Your task to perform on an android device: Search for flights from Seoul to Barcelona Image 0: 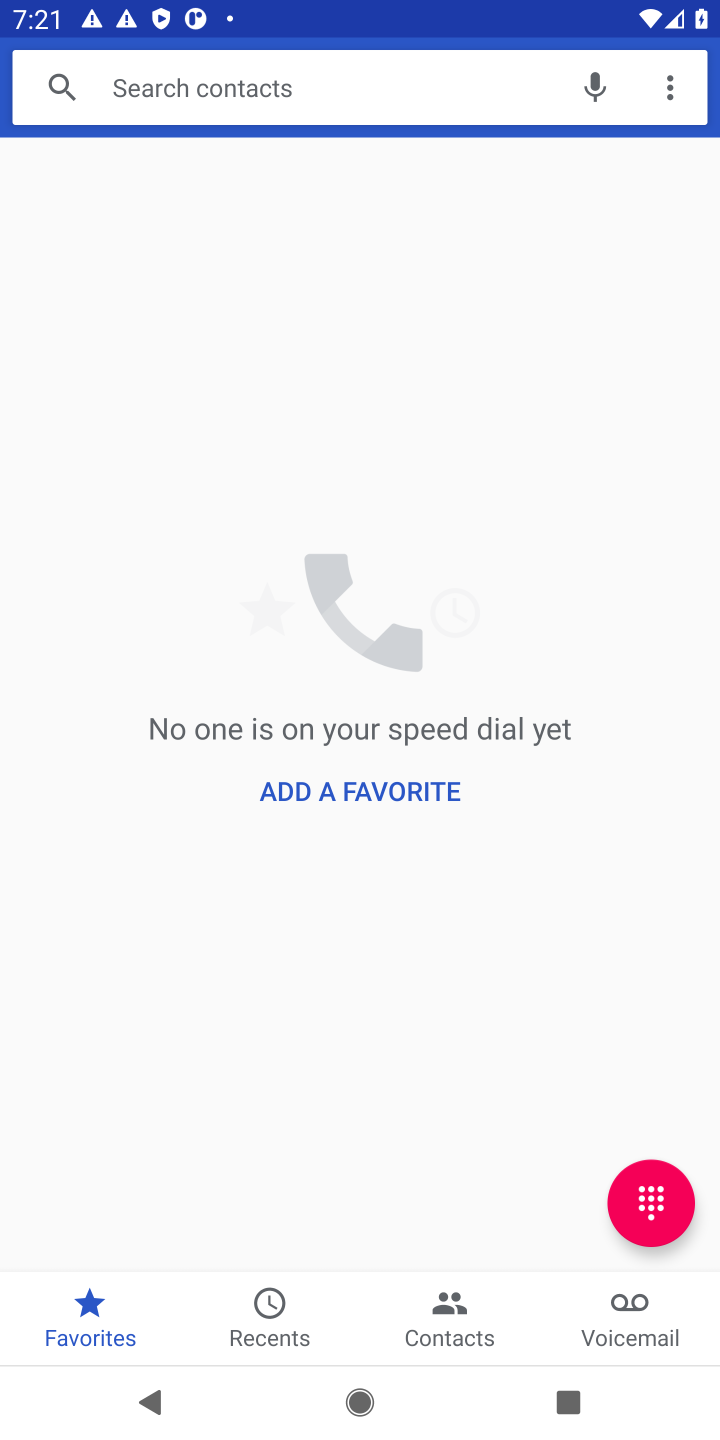
Step 0: press home button
Your task to perform on an android device: Search for flights from Seoul to Barcelona Image 1: 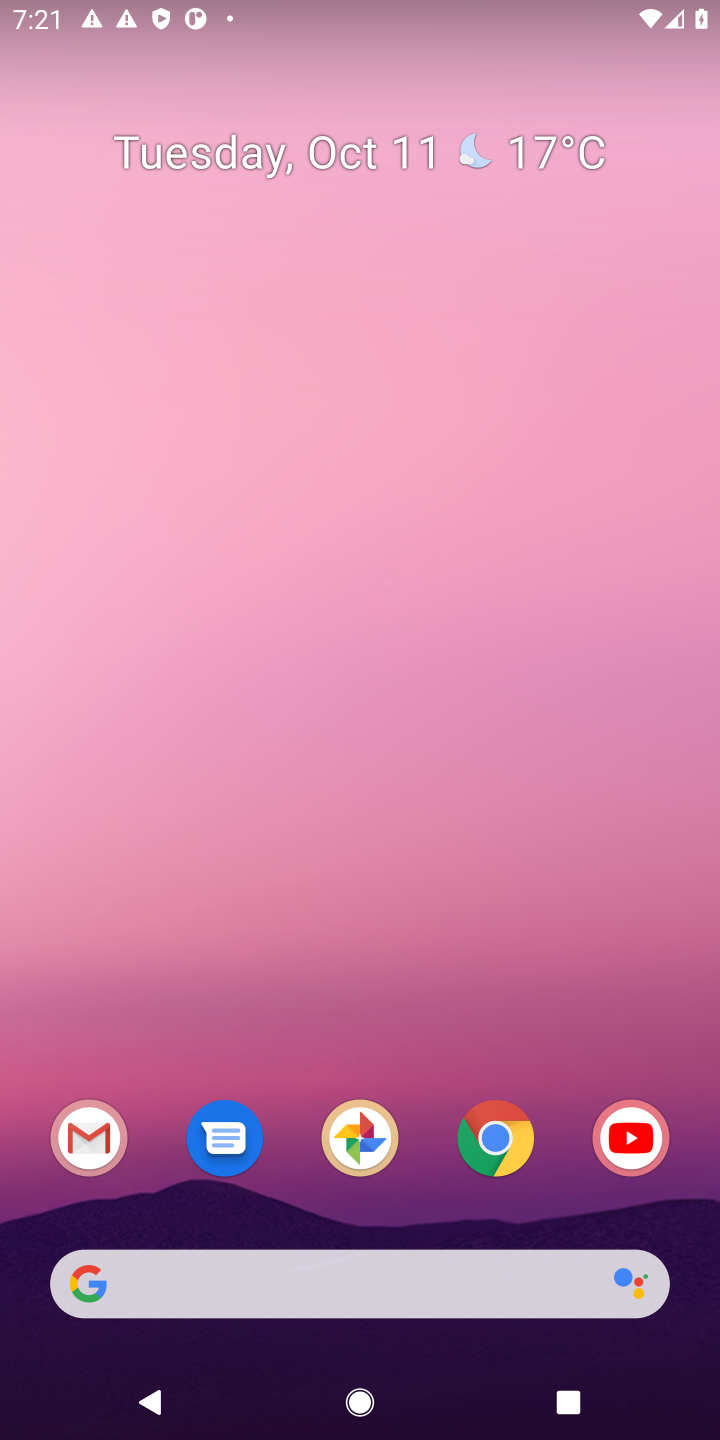
Step 1: click (217, 1268)
Your task to perform on an android device: Search for flights from Seoul to Barcelona Image 2: 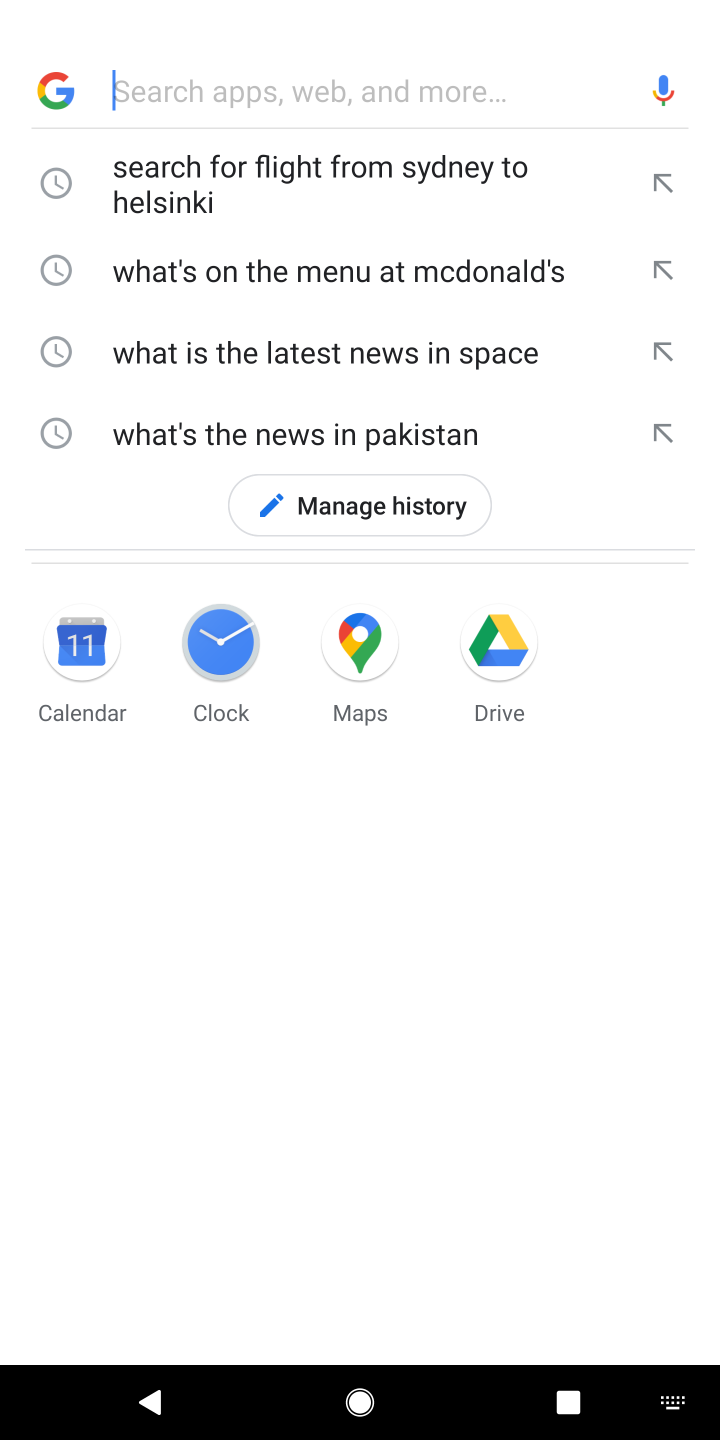
Step 2: type "Search for flights from Seoul to Barcelona"
Your task to perform on an android device: Search for flights from Seoul to Barcelona Image 3: 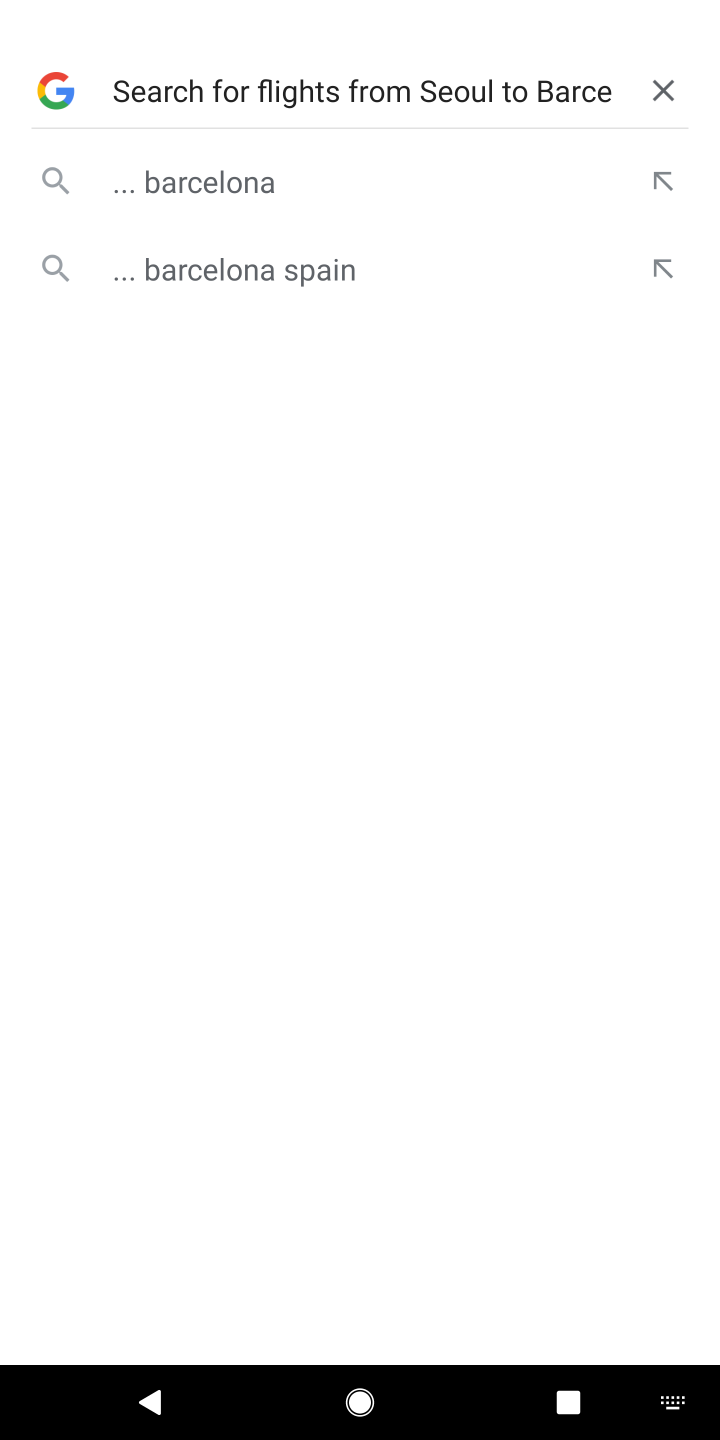
Step 3: click (204, 171)
Your task to perform on an android device: Search for flights from Seoul to Barcelona Image 4: 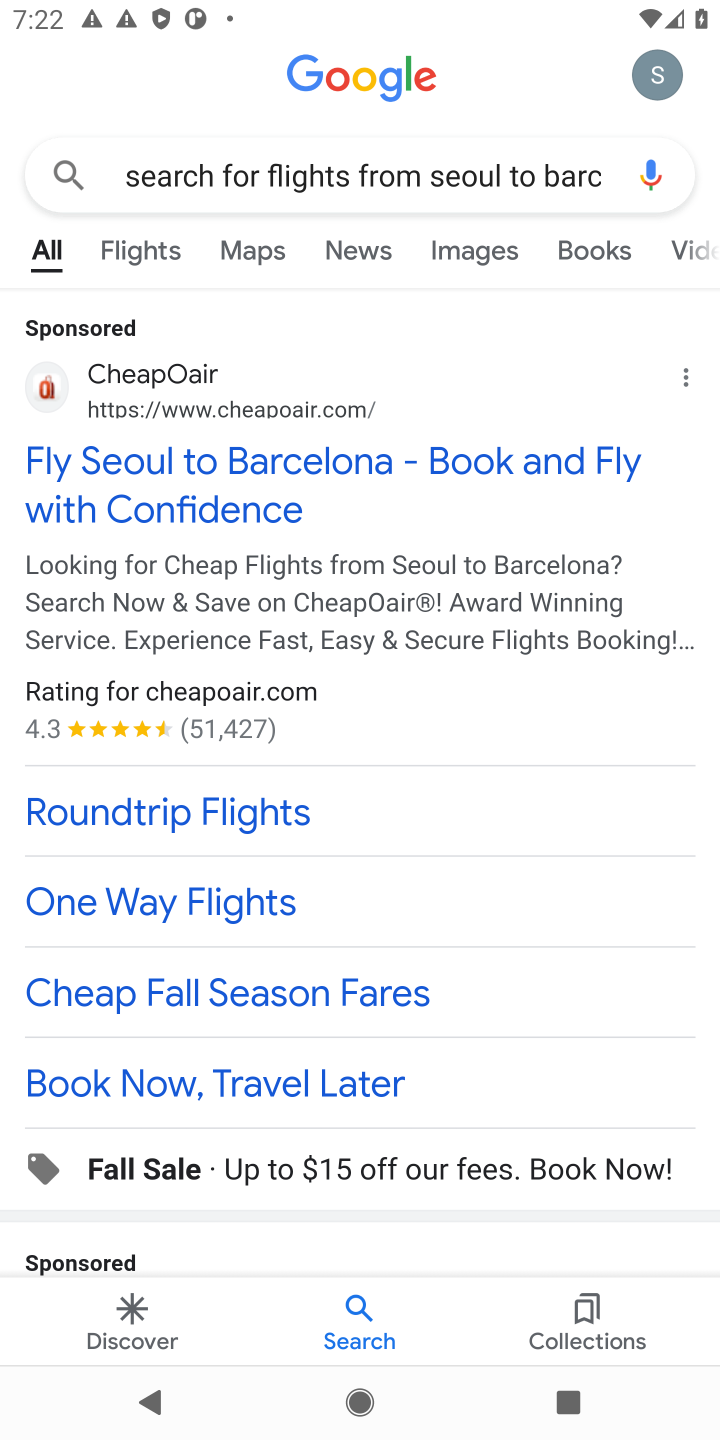
Step 4: click (232, 464)
Your task to perform on an android device: Search for flights from Seoul to Barcelona Image 5: 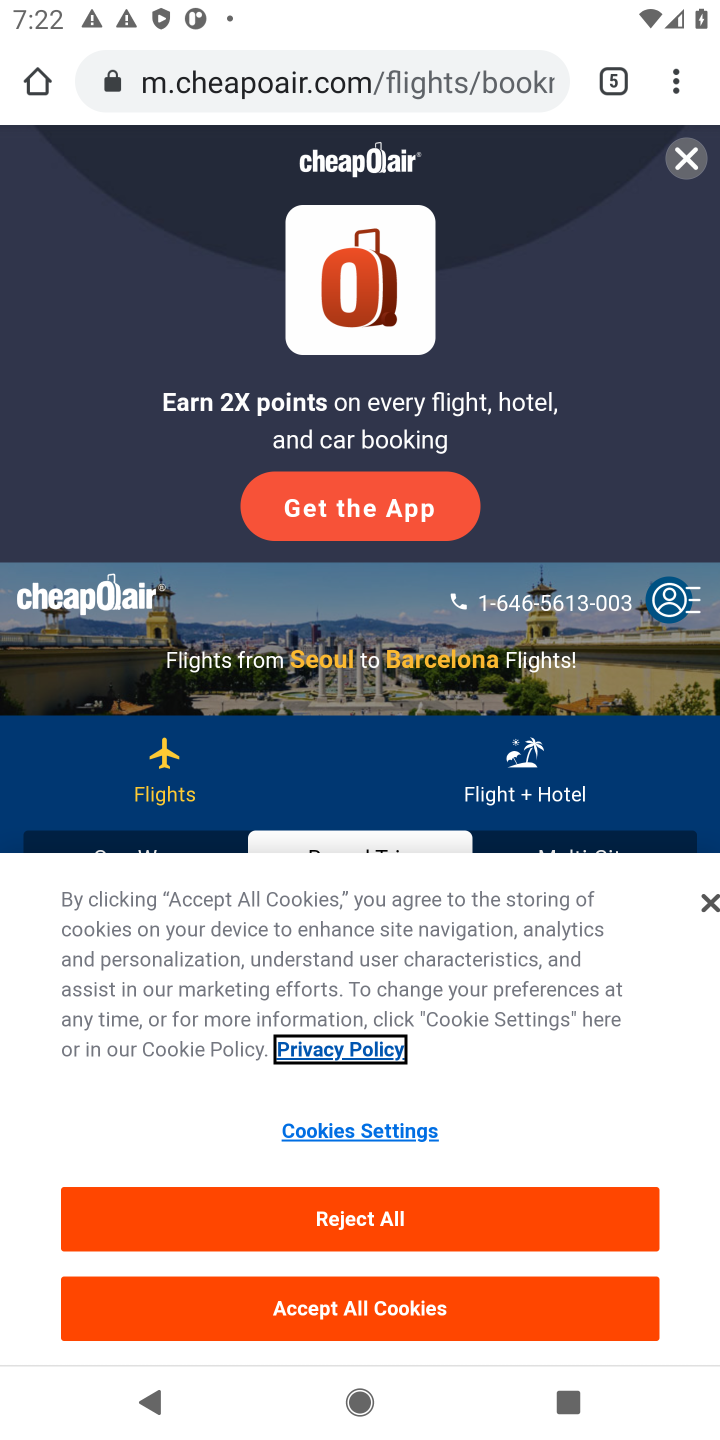
Step 5: click (358, 1317)
Your task to perform on an android device: Search for flights from Seoul to Barcelona Image 6: 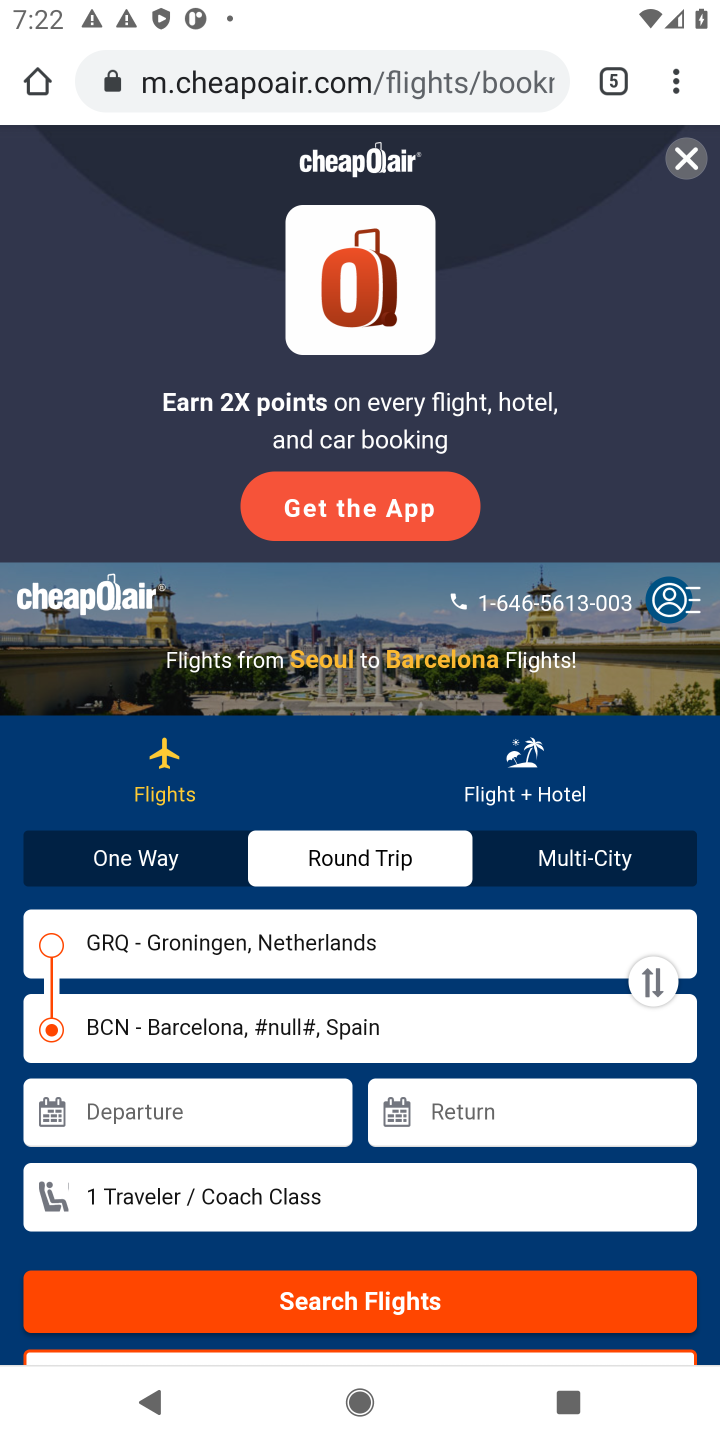
Step 6: click (56, 1101)
Your task to perform on an android device: Search for flights from Seoul to Barcelona Image 7: 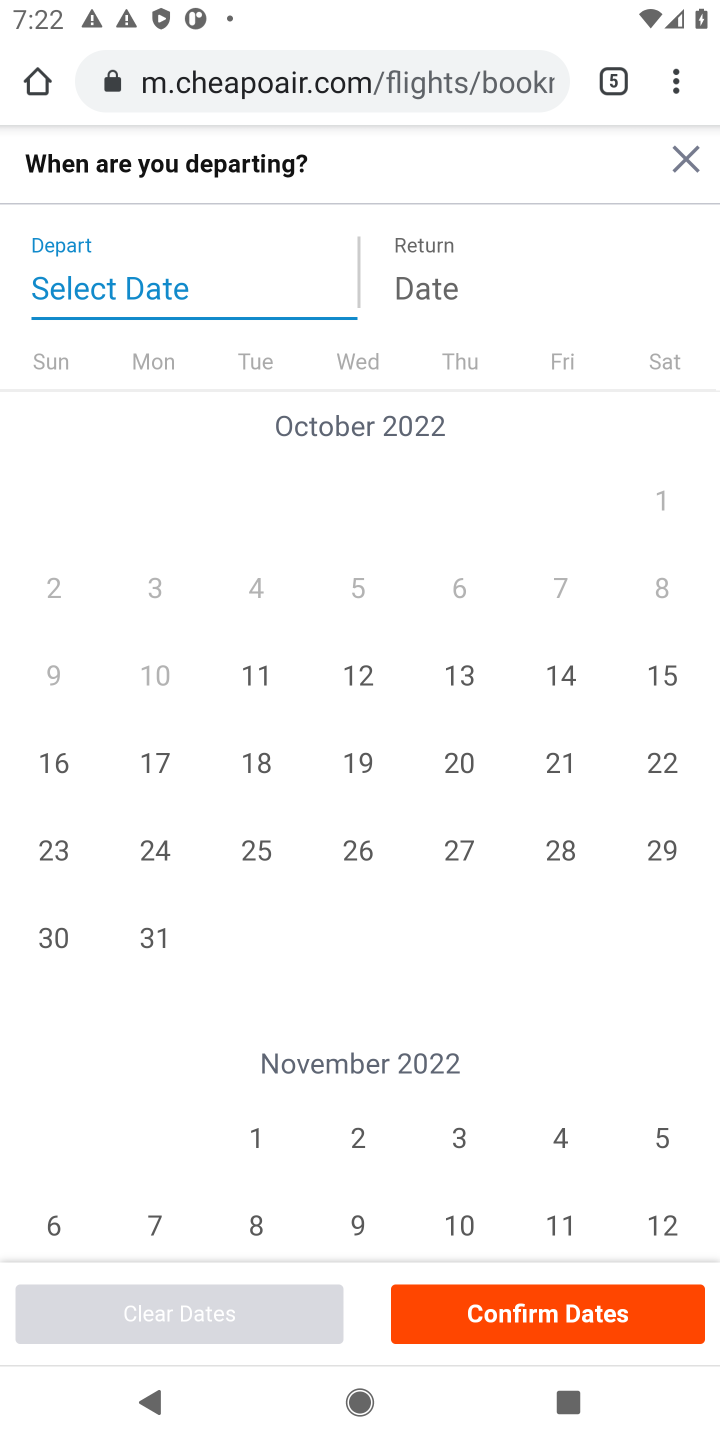
Step 7: click (264, 758)
Your task to perform on an android device: Search for flights from Seoul to Barcelona Image 8: 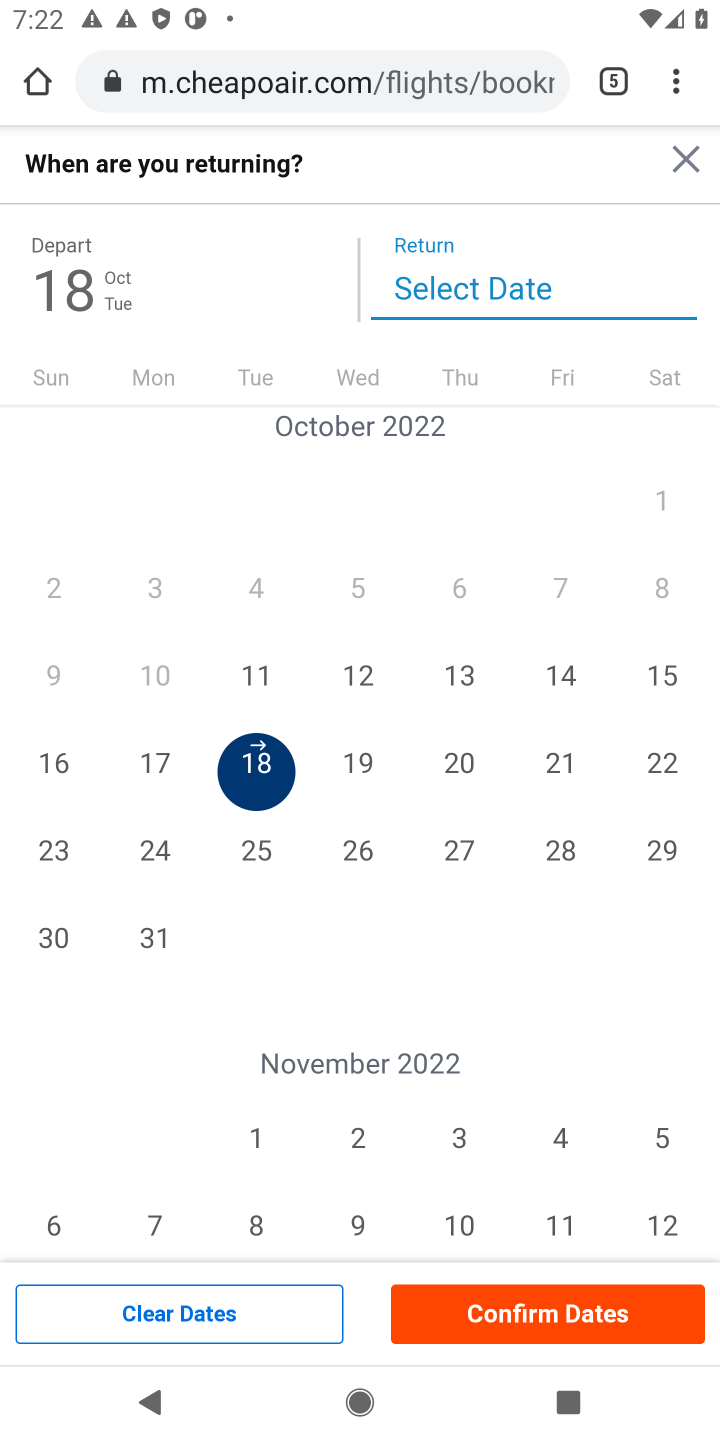
Step 8: click (493, 1318)
Your task to perform on an android device: Search for flights from Seoul to Barcelona Image 9: 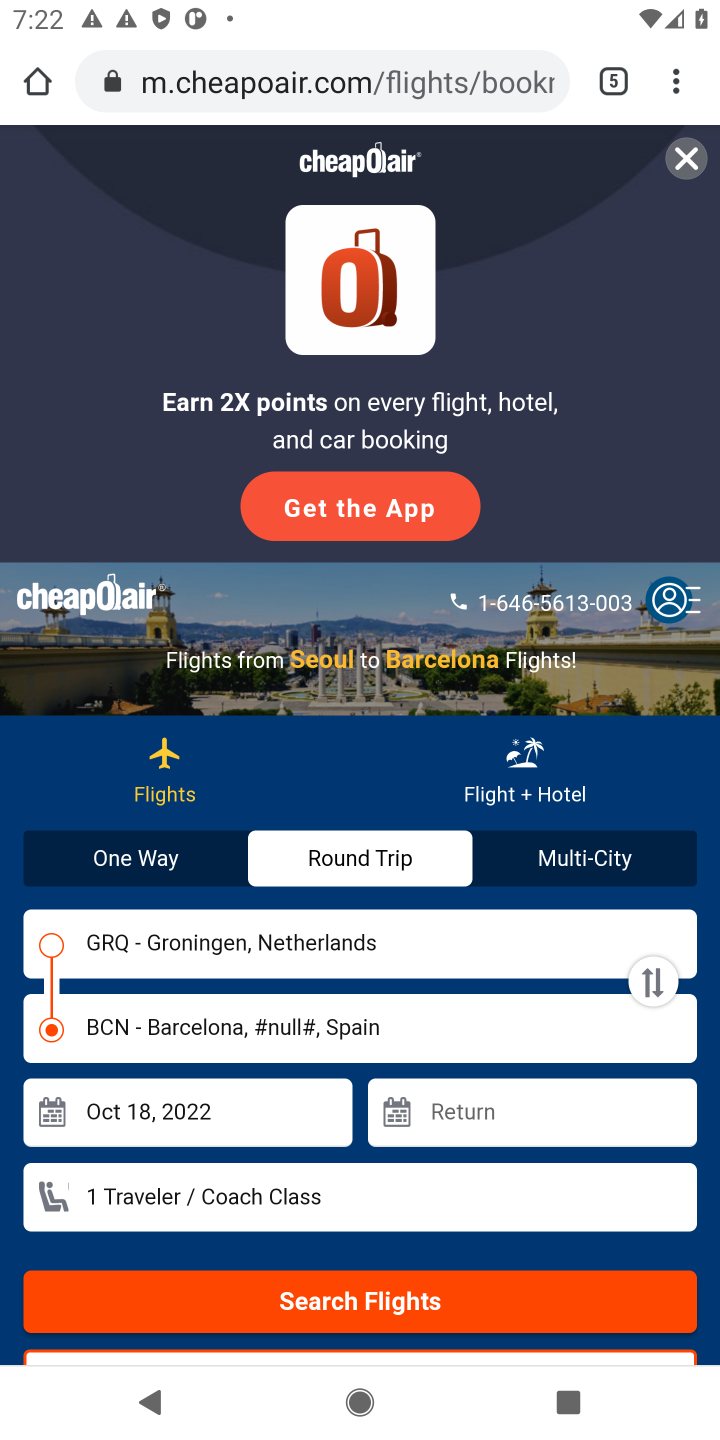
Step 9: click (444, 1118)
Your task to perform on an android device: Search for flights from Seoul to Barcelona Image 10: 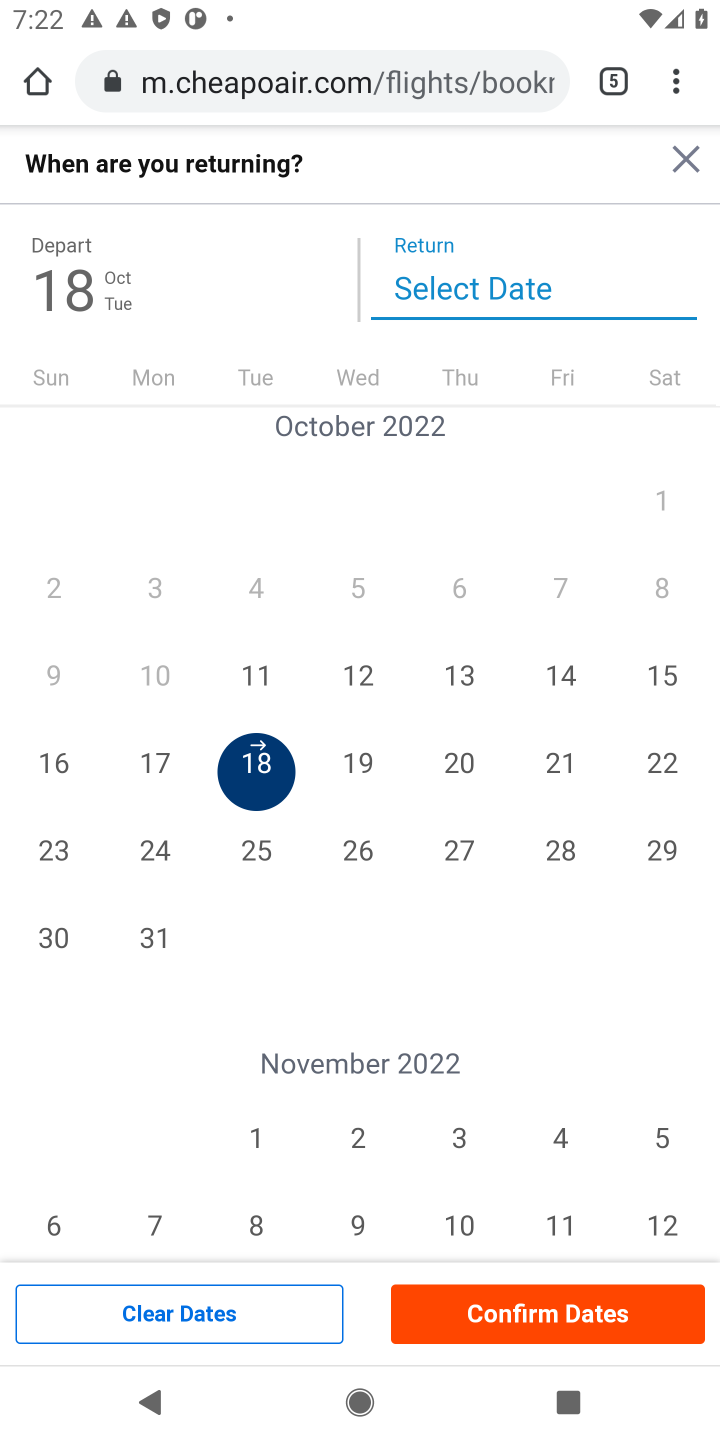
Step 10: click (260, 848)
Your task to perform on an android device: Search for flights from Seoul to Barcelona Image 11: 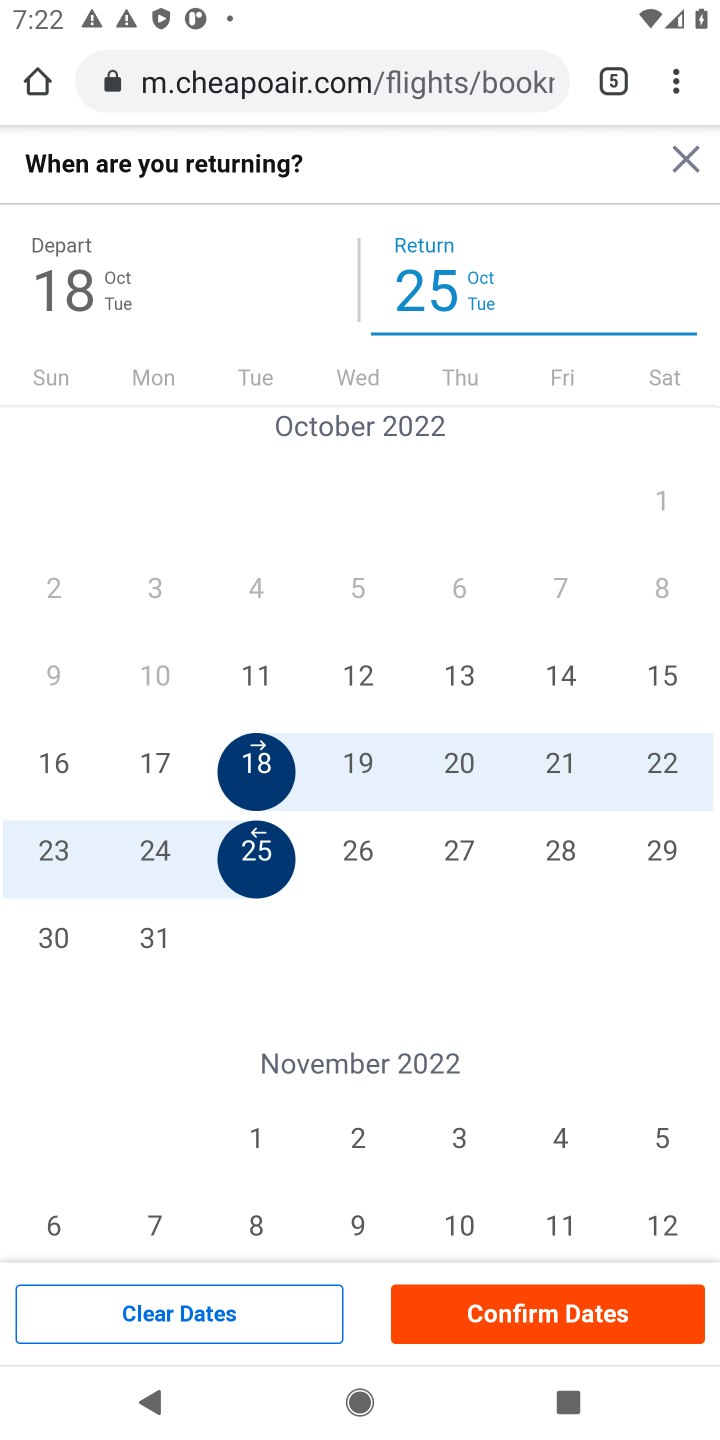
Step 11: click (503, 1302)
Your task to perform on an android device: Search for flights from Seoul to Barcelona Image 12: 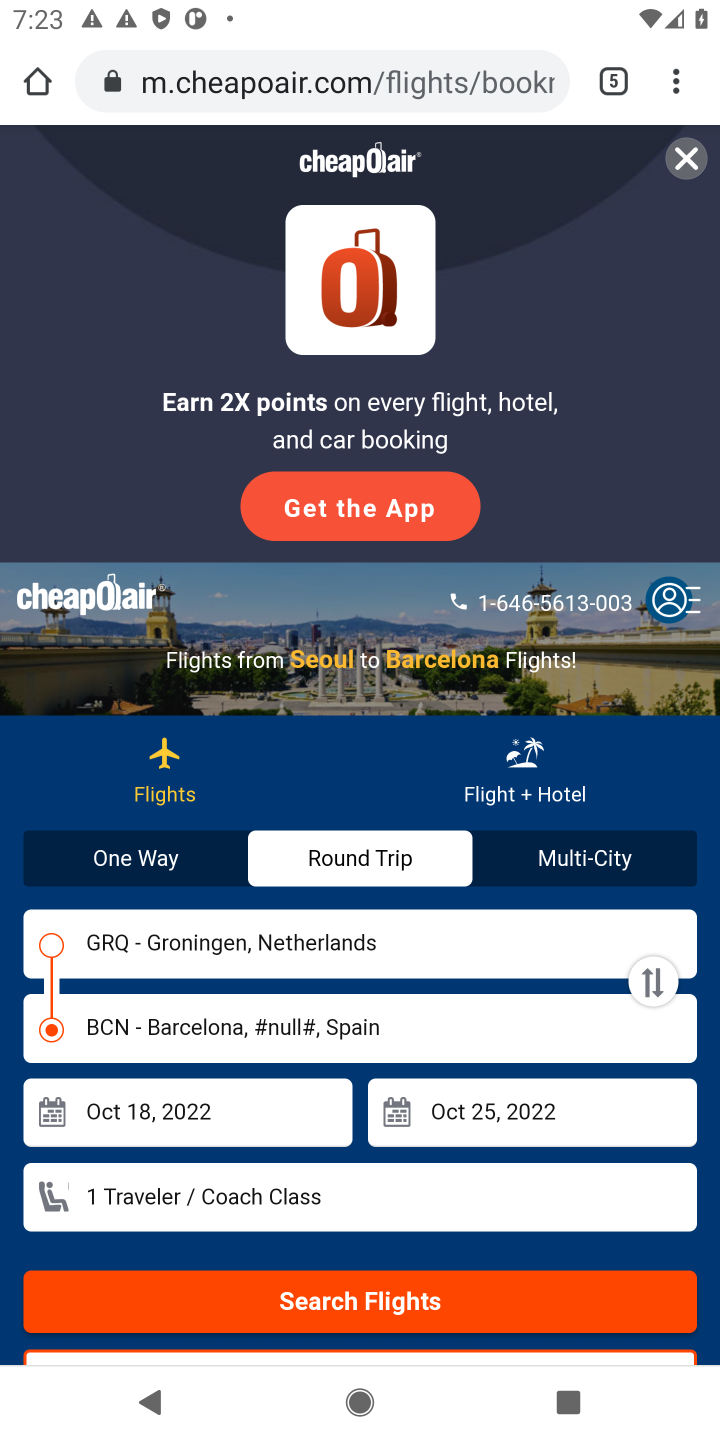
Step 12: click (391, 1292)
Your task to perform on an android device: Search for flights from Seoul to Barcelona Image 13: 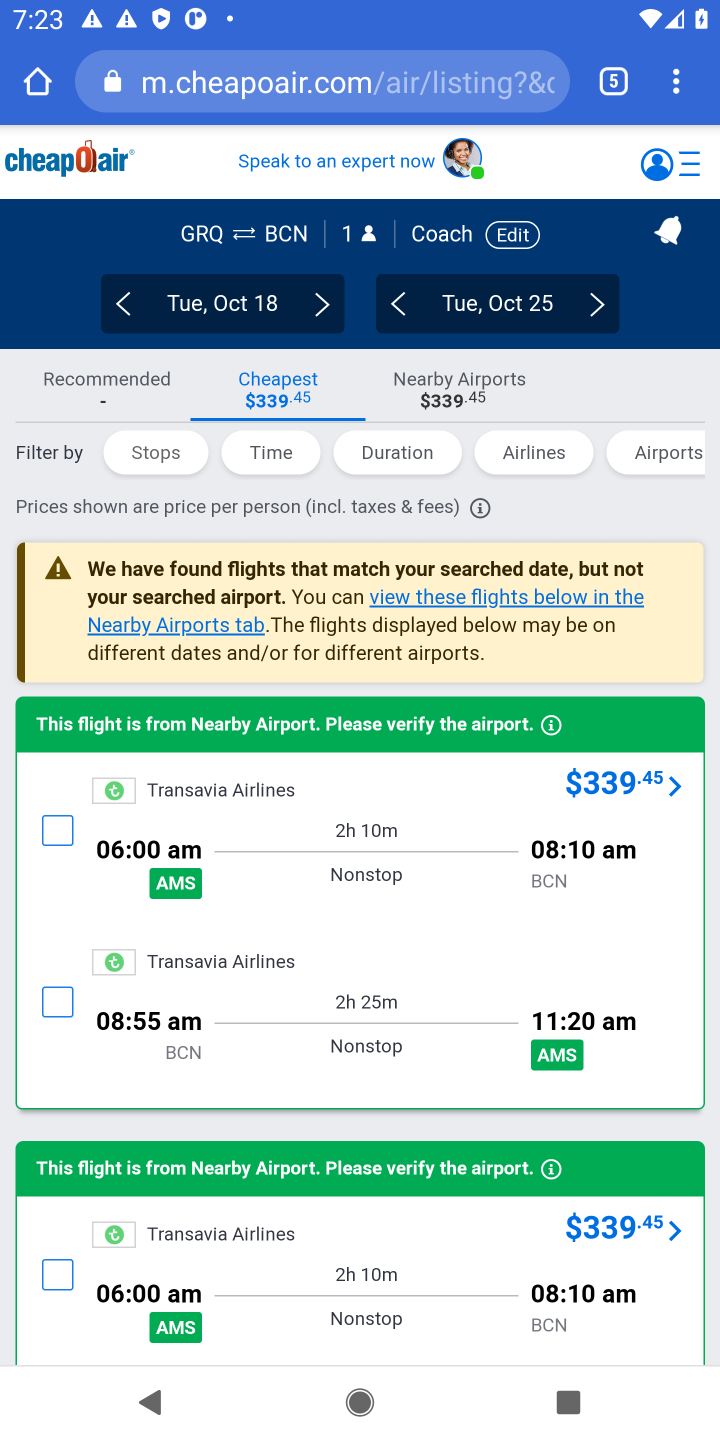
Step 13: task complete